Your task to perform on an android device: Search for Mexican restaurants on Maps Image 0: 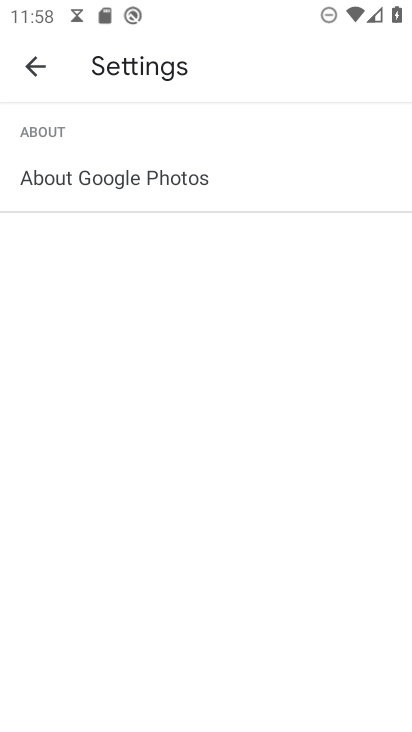
Step 0: press home button
Your task to perform on an android device: Search for Mexican restaurants on Maps Image 1: 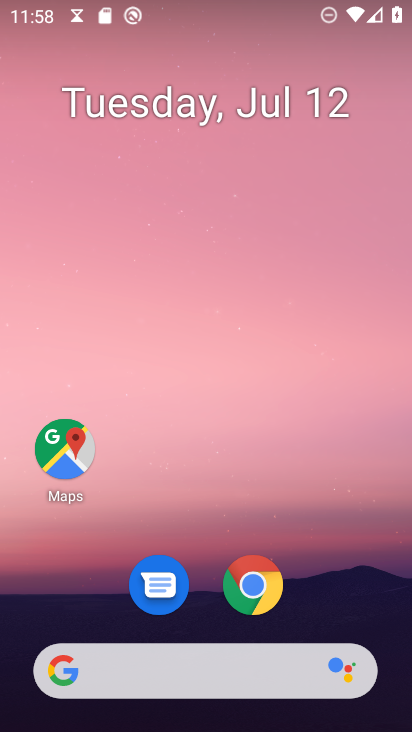
Step 1: click (59, 452)
Your task to perform on an android device: Search for Mexican restaurants on Maps Image 2: 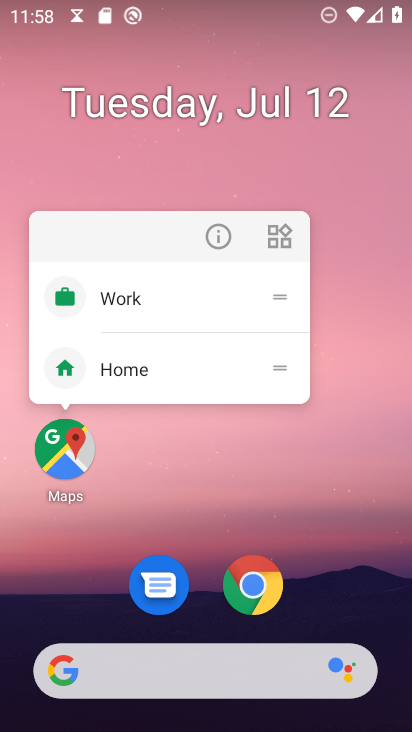
Step 2: click (43, 448)
Your task to perform on an android device: Search for Mexican restaurants on Maps Image 3: 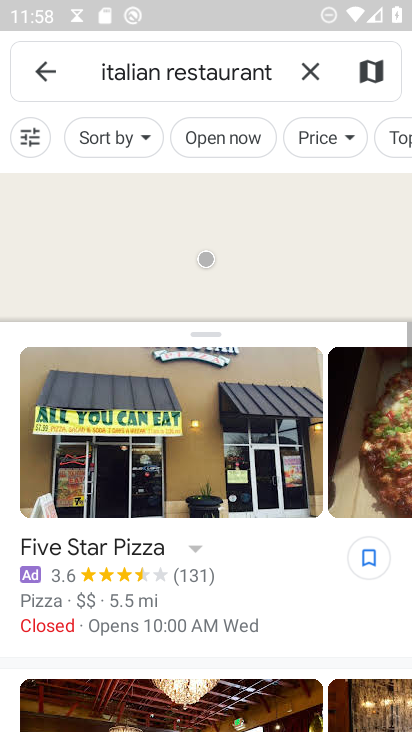
Step 3: click (310, 70)
Your task to perform on an android device: Search for Mexican restaurants on Maps Image 4: 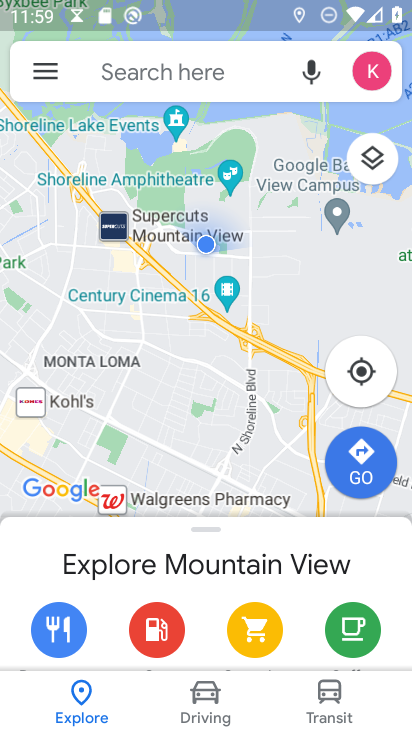
Step 4: type "Mexican restaurants"
Your task to perform on an android device: Search for Mexican restaurants on Maps Image 5: 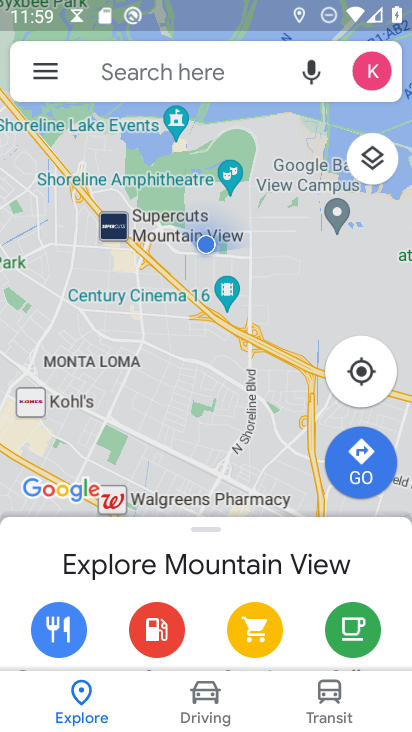
Step 5: click (160, 68)
Your task to perform on an android device: Search for Mexican restaurants on Maps Image 6: 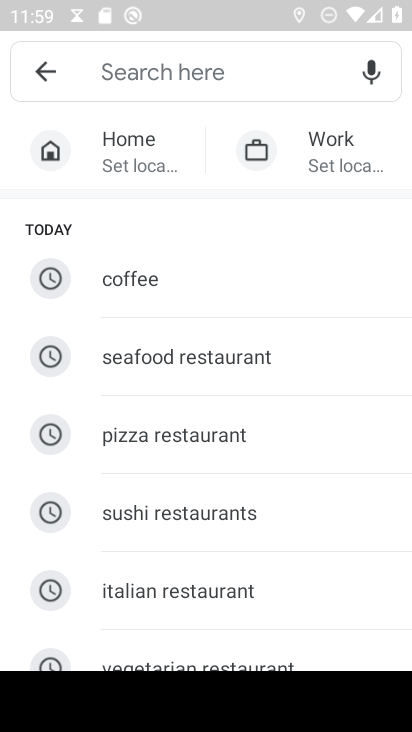
Step 6: drag from (225, 605) to (300, 319)
Your task to perform on an android device: Search for Mexican restaurants on Maps Image 7: 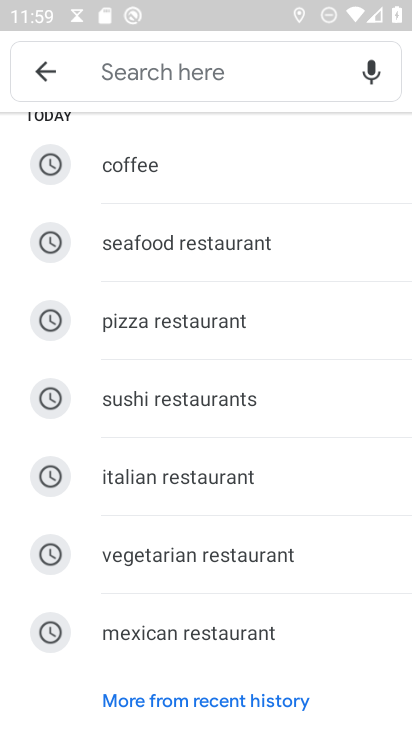
Step 7: click (193, 635)
Your task to perform on an android device: Search for Mexican restaurants on Maps Image 8: 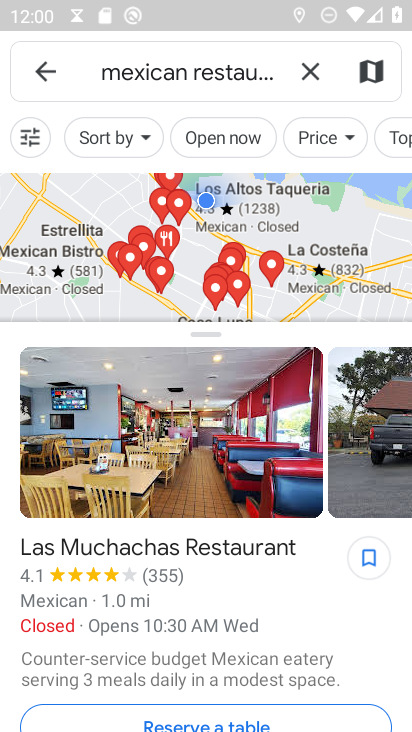
Step 8: task complete